Your task to perform on an android device: Open display settings Image 0: 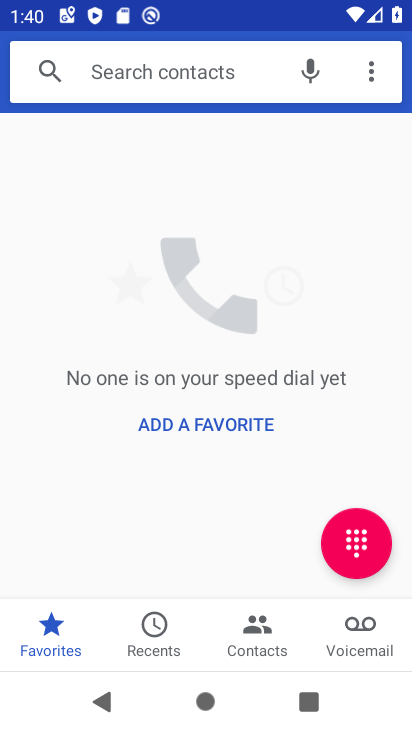
Step 0: press home button
Your task to perform on an android device: Open display settings Image 1: 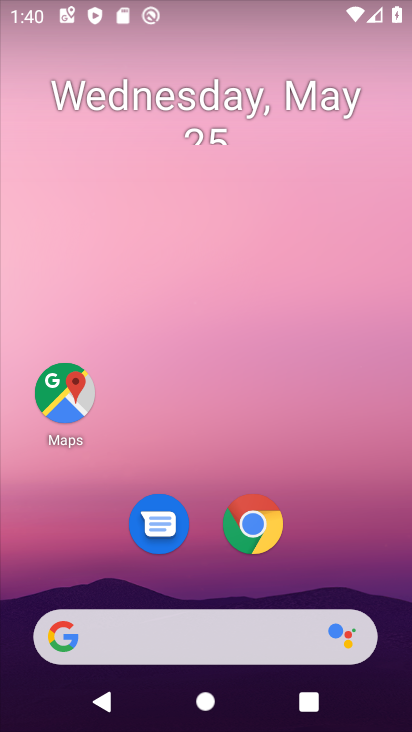
Step 1: drag from (215, 481) to (251, 0)
Your task to perform on an android device: Open display settings Image 2: 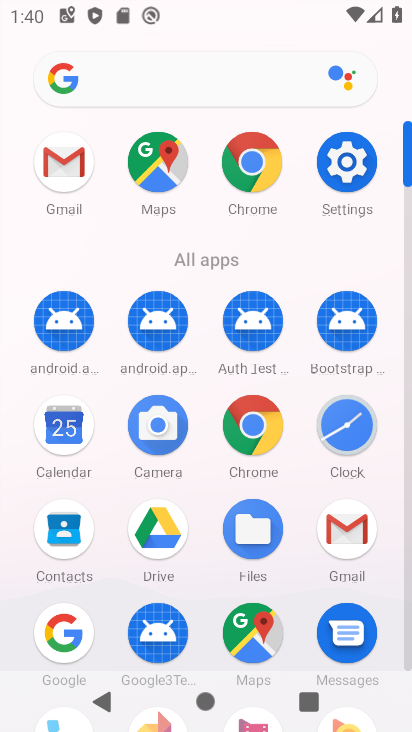
Step 2: click (347, 158)
Your task to perform on an android device: Open display settings Image 3: 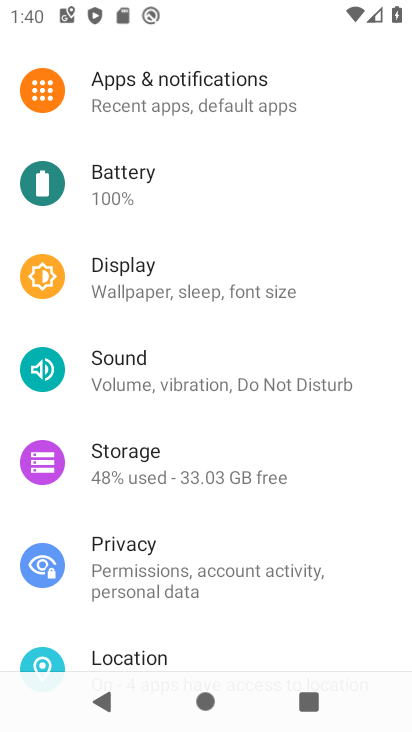
Step 3: click (196, 286)
Your task to perform on an android device: Open display settings Image 4: 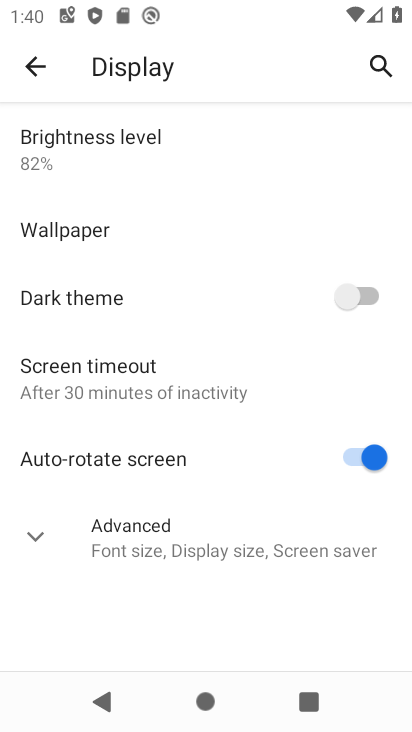
Step 4: task complete